Your task to perform on an android device: Turn off the flashlight Image 0: 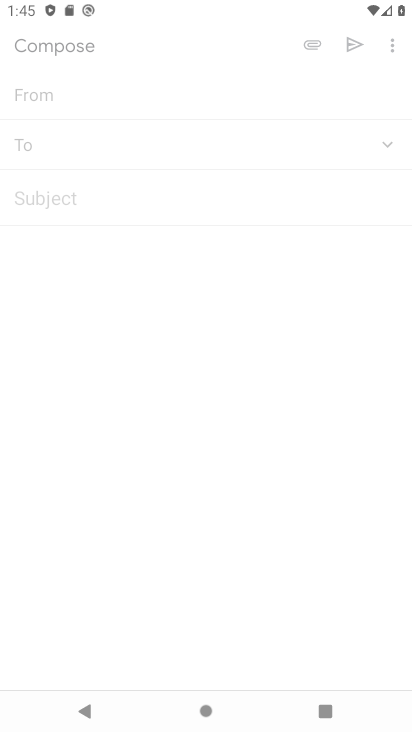
Step 0: drag from (174, 727) to (252, 63)
Your task to perform on an android device: Turn off the flashlight Image 1: 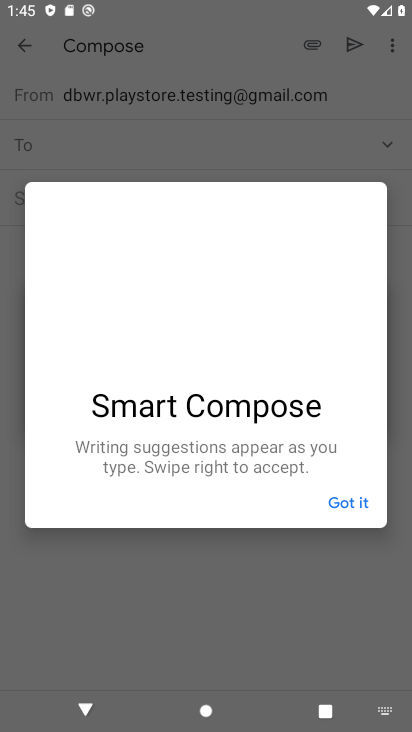
Step 1: press home button
Your task to perform on an android device: Turn off the flashlight Image 2: 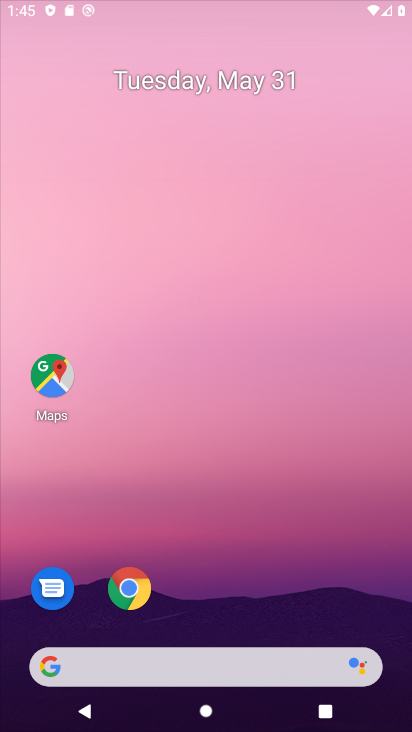
Step 2: drag from (192, 15) to (173, 609)
Your task to perform on an android device: Turn off the flashlight Image 3: 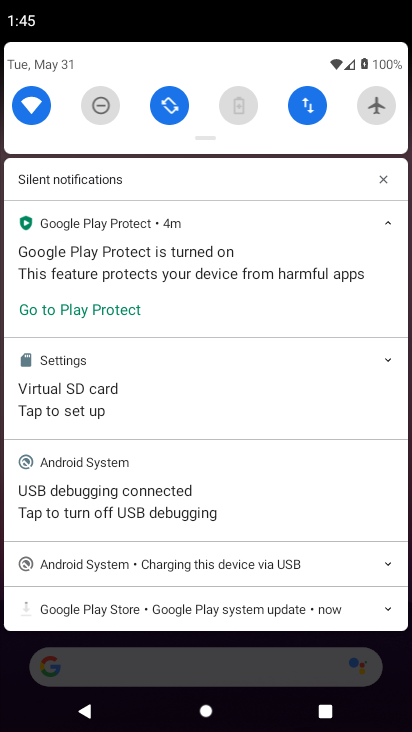
Step 3: drag from (186, 135) to (212, 572)
Your task to perform on an android device: Turn off the flashlight Image 4: 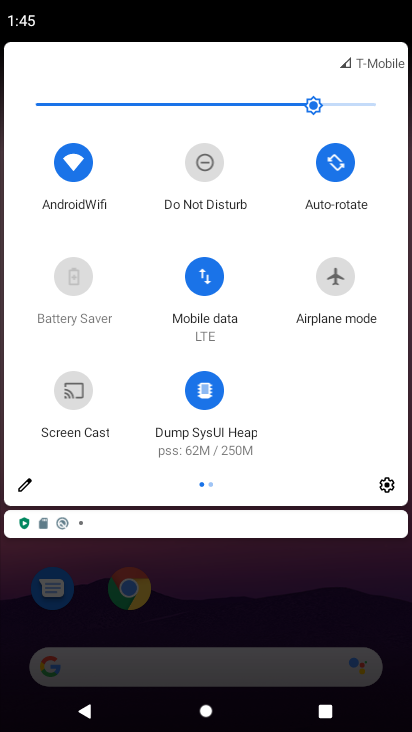
Step 4: click (29, 488)
Your task to perform on an android device: Turn off the flashlight Image 5: 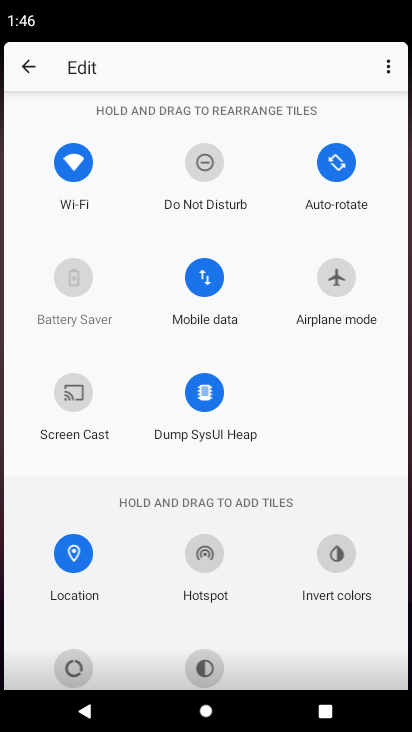
Step 5: task complete